Your task to perform on an android device: Open the calendar app, open the side menu, and click the "Day" option Image 0: 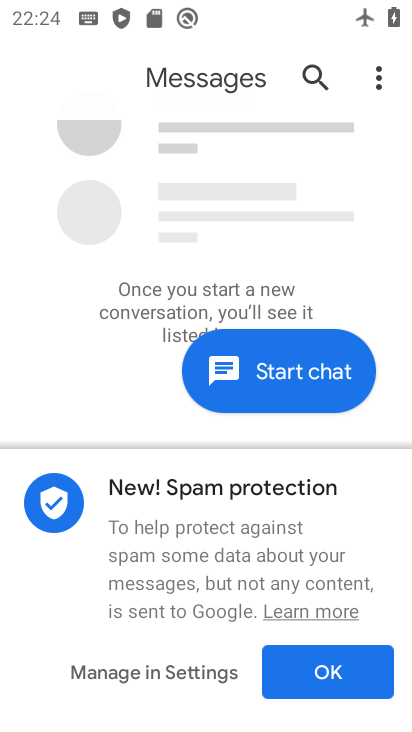
Step 0: press home button
Your task to perform on an android device: Open the calendar app, open the side menu, and click the "Day" option Image 1: 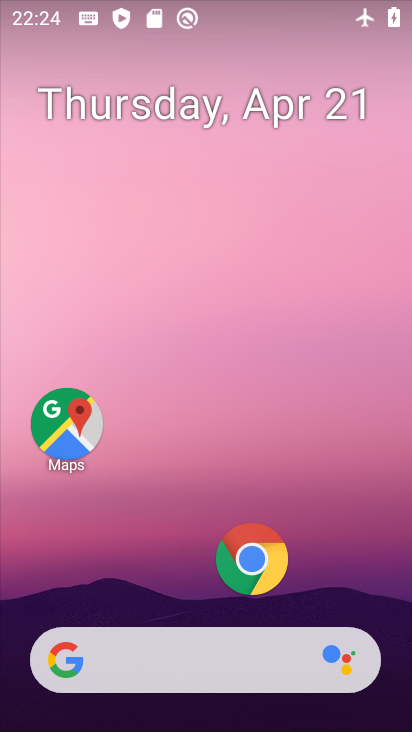
Step 1: drag from (95, 601) to (146, 131)
Your task to perform on an android device: Open the calendar app, open the side menu, and click the "Day" option Image 2: 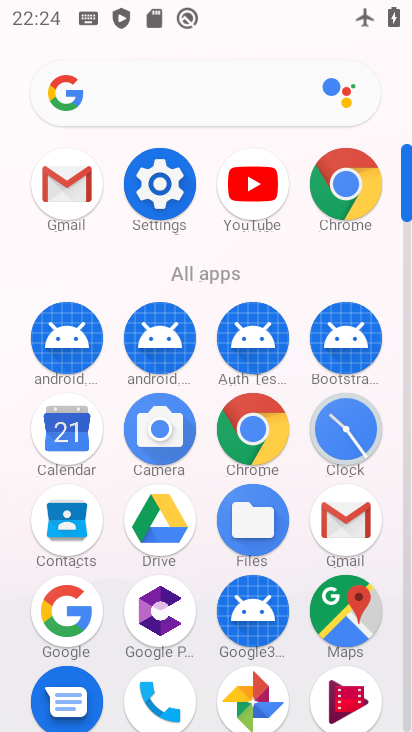
Step 2: click (73, 427)
Your task to perform on an android device: Open the calendar app, open the side menu, and click the "Day" option Image 3: 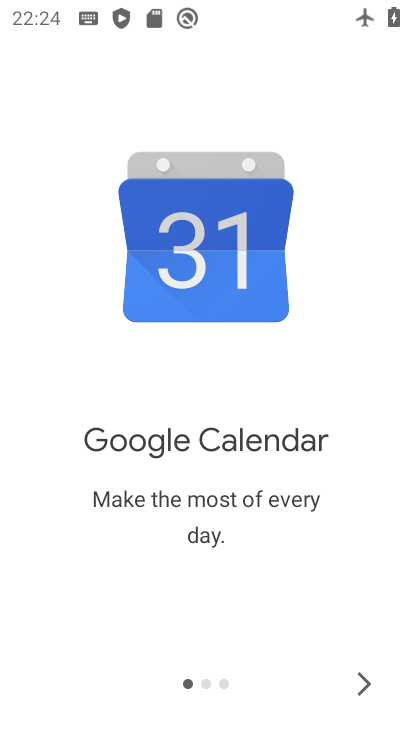
Step 3: click (373, 689)
Your task to perform on an android device: Open the calendar app, open the side menu, and click the "Day" option Image 4: 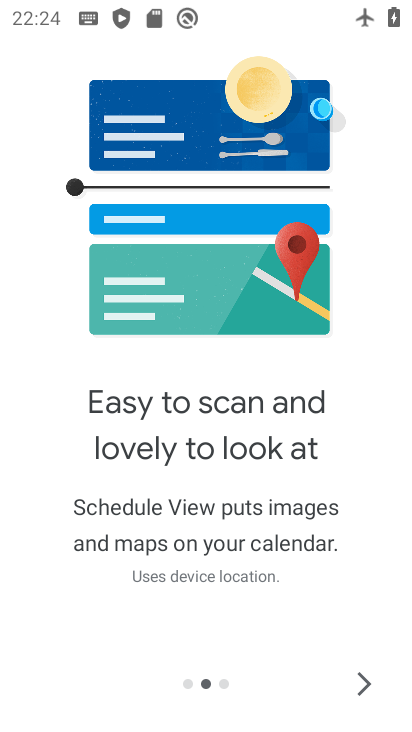
Step 4: click (370, 683)
Your task to perform on an android device: Open the calendar app, open the side menu, and click the "Day" option Image 5: 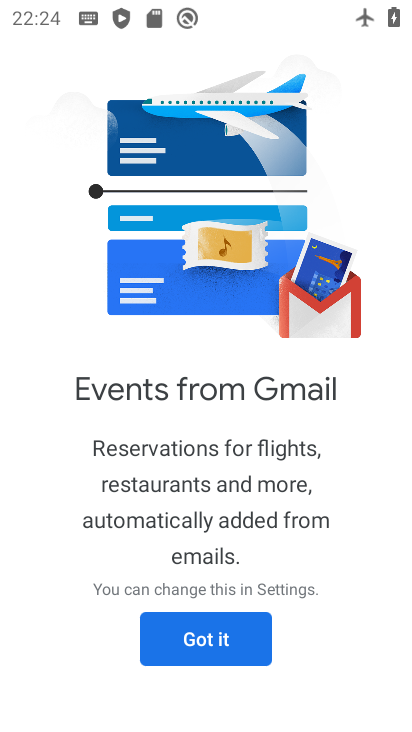
Step 5: click (370, 683)
Your task to perform on an android device: Open the calendar app, open the side menu, and click the "Day" option Image 6: 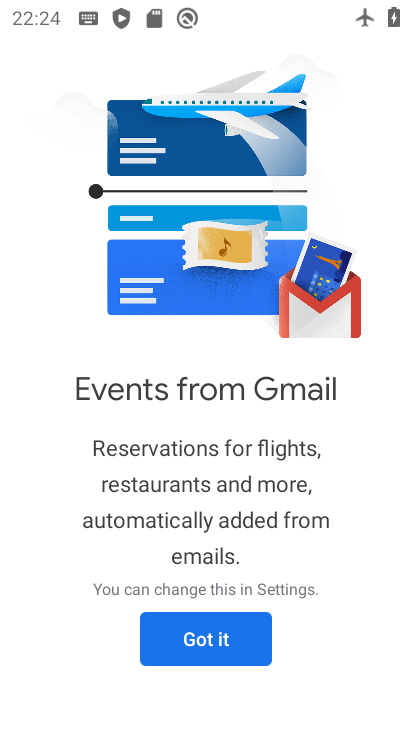
Step 6: click (197, 628)
Your task to perform on an android device: Open the calendar app, open the side menu, and click the "Day" option Image 7: 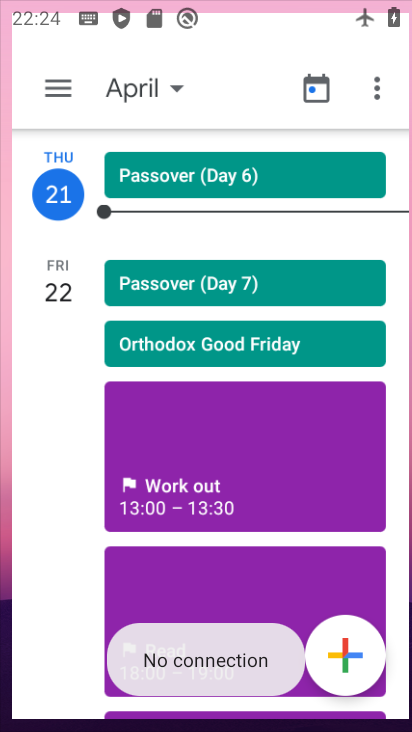
Step 7: click (206, 628)
Your task to perform on an android device: Open the calendar app, open the side menu, and click the "Day" option Image 8: 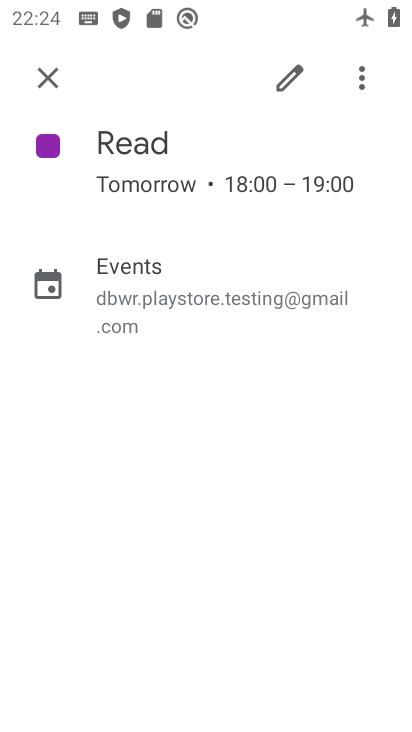
Step 8: click (60, 78)
Your task to perform on an android device: Open the calendar app, open the side menu, and click the "Day" option Image 9: 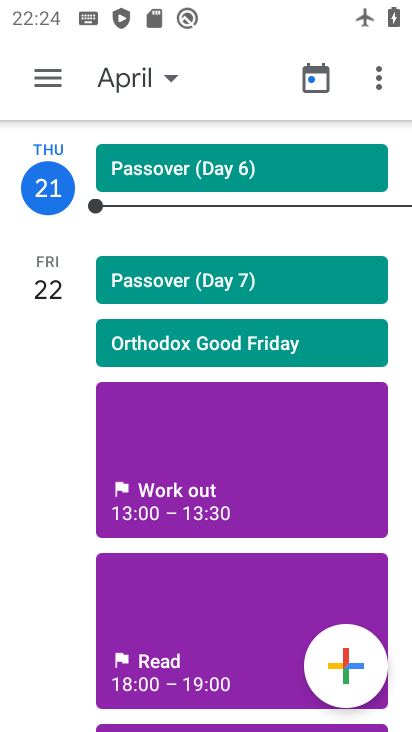
Step 9: click (56, 78)
Your task to perform on an android device: Open the calendar app, open the side menu, and click the "Day" option Image 10: 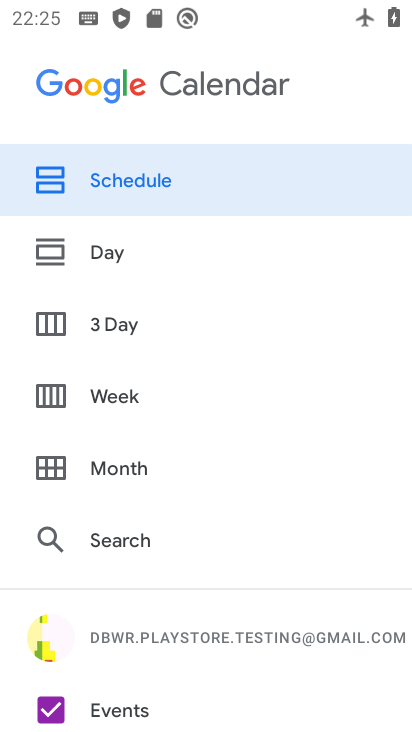
Step 10: click (158, 268)
Your task to perform on an android device: Open the calendar app, open the side menu, and click the "Day" option Image 11: 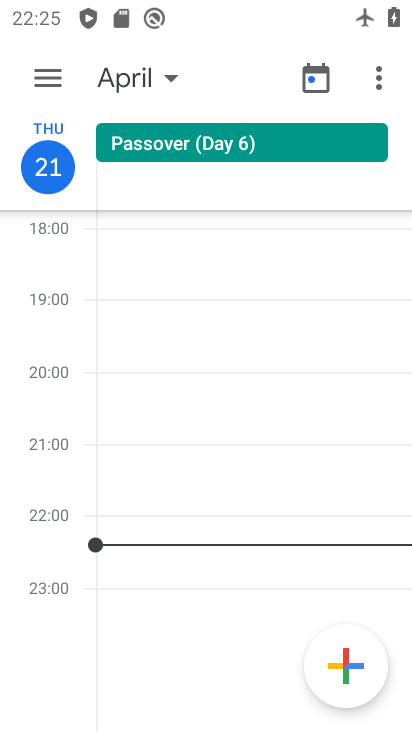
Step 11: task complete